Your task to perform on an android device: toggle sleep mode Image 0: 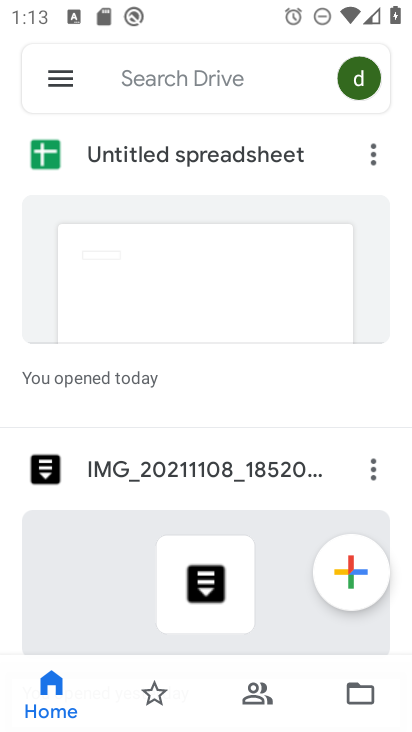
Step 0: press home button
Your task to perform on an android device: toggle sleep mode Image 1: 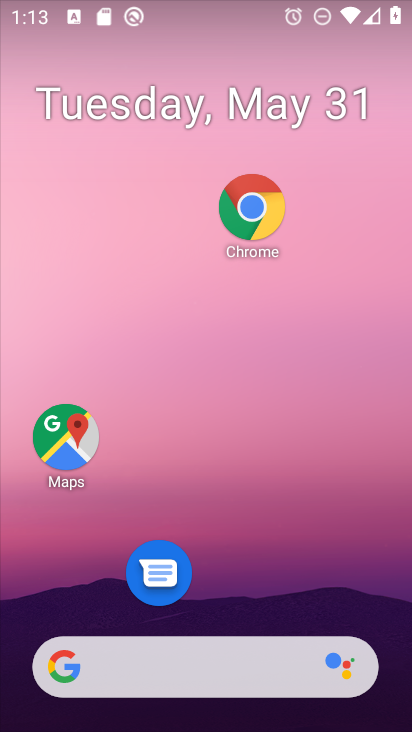
Step 1: drag from (217, 624) to (238, 124)
Your task to perform on an android device: toggle sleep mode Image 2: 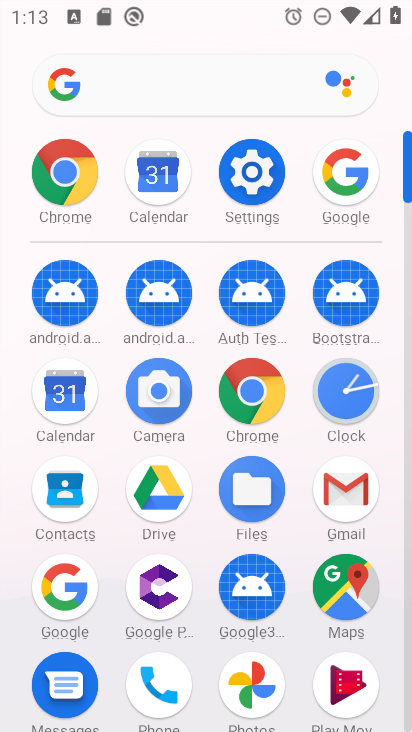
Step 2: click (255, 205)
Your task to perform on an android device: toggle sleep mode Image 3: 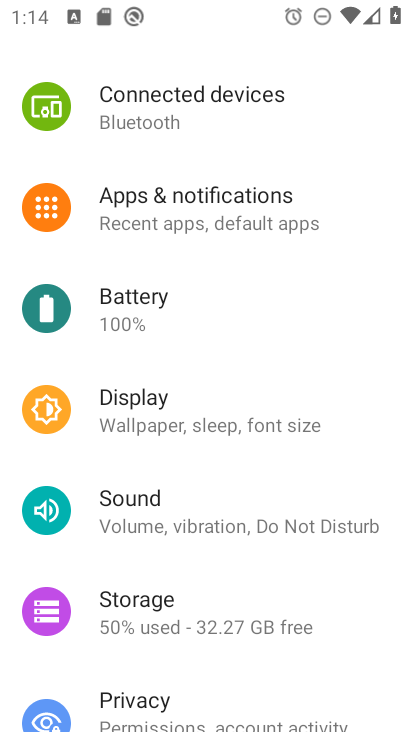
Step 3: click (207, 408)
Your task to perform on an android device: toggle sleep mode Image 4: 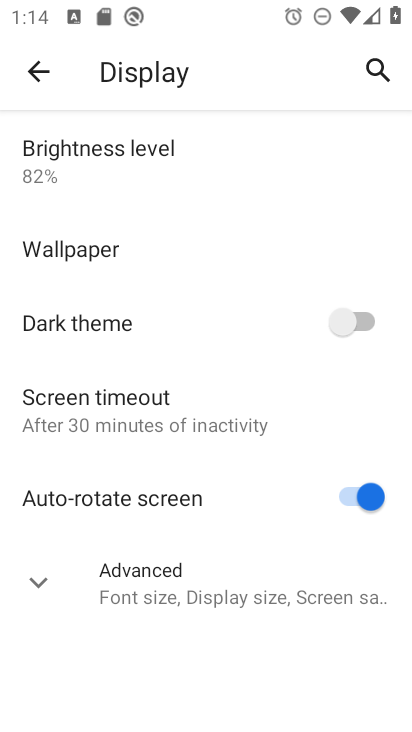
Step 4: click (184, 591)
Your task to perform on an android device: toggle sleep mode Image 5: 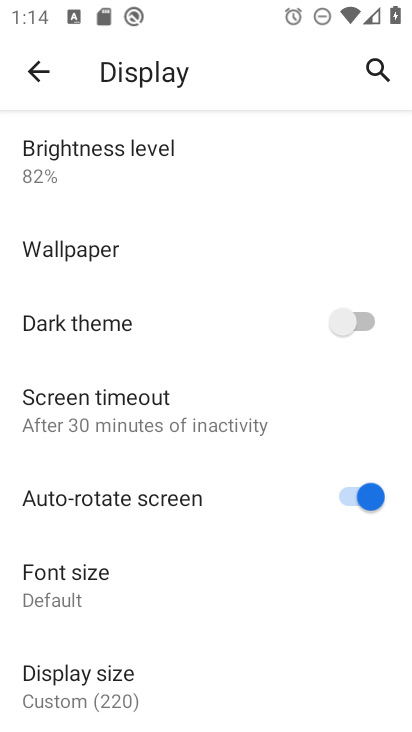
Step 5: task complete